Your task to perform on an android device: set the timer Image 0: 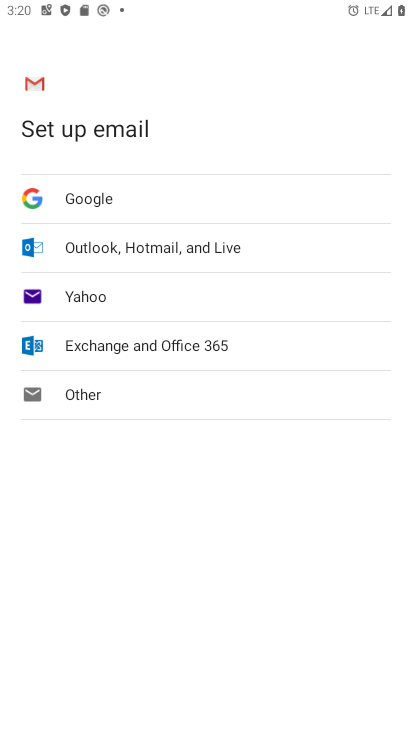
Step 0: press home button
Your task to perform on an android device: set the timer Image 1: 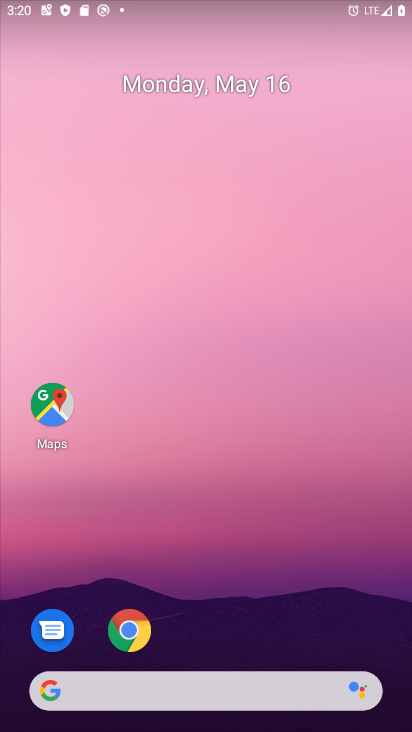
Step 1: drag from (207, 640) to (159, 42)
Your task to perform on an android device: set the timer Image 2: 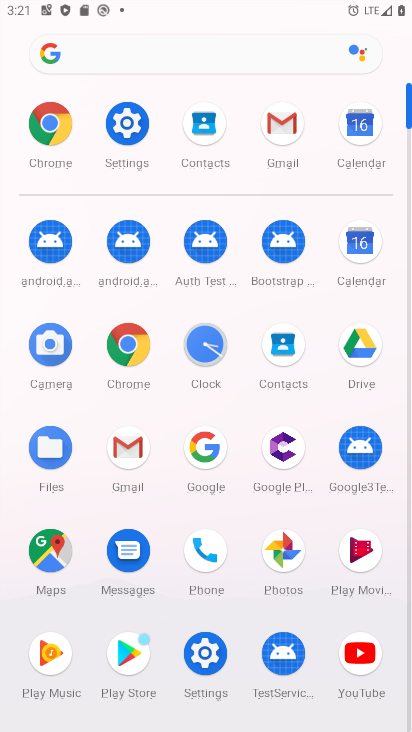
Step 2: click (201, 338)
Your task to perform on an android device: set the timer Image 3: 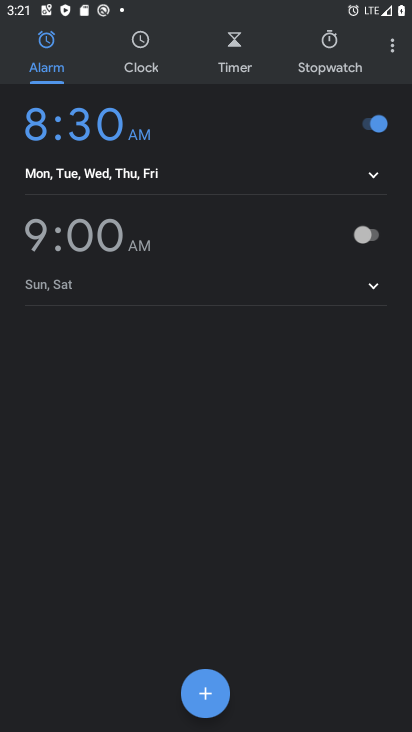
Step 3: click (233, 44)
Your task to perform on an android device: set the timer Image 4: 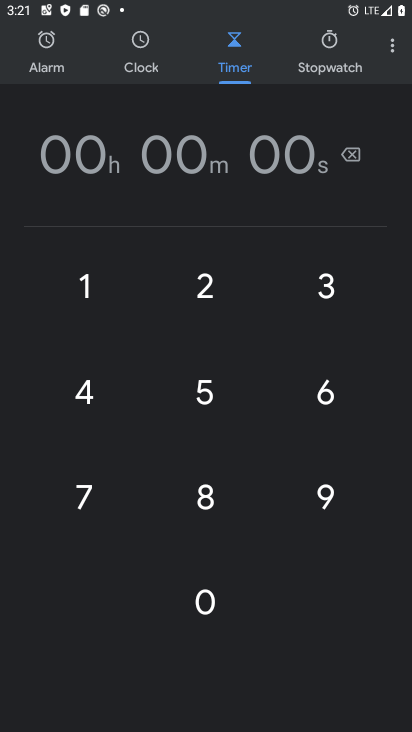
Step 4: click (200, 285)
Your task to perform on an android device: set the timer Image 5: 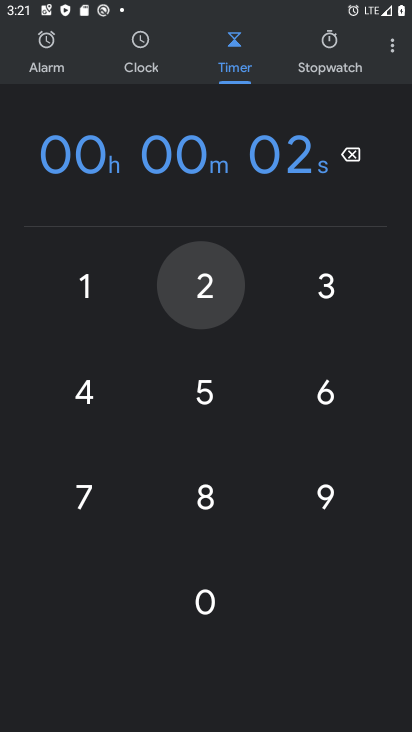
Step 5: click (203, 583)
Your task to perform on an android device: set the timer Image 6: 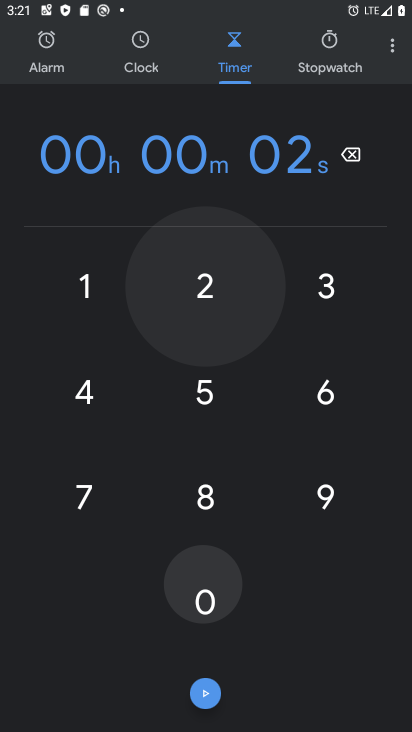
Step 6: click (203, 583)
Your task to perform on an android device: set the timer Image 7: 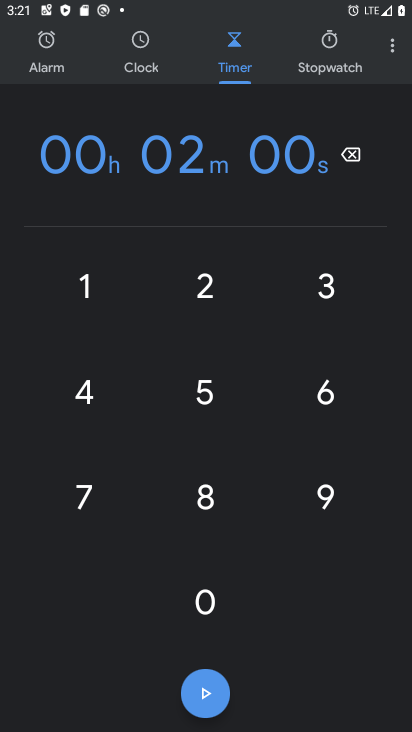
Step 7: click (206, 695)
Your task to perform on an android device: set the timer Image 8: 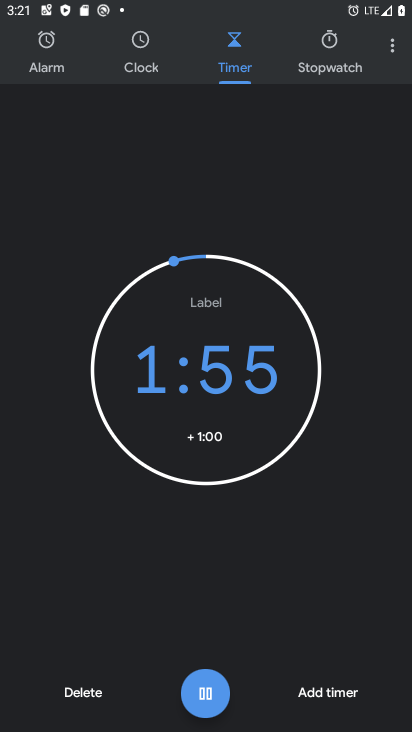
Step 8: task complete